Your task to perform on an android device: Open Yahoo.com Image 0: 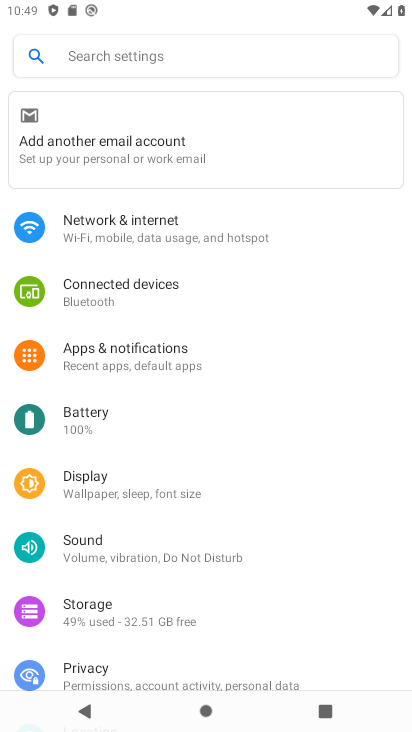
Step 0: press home button
Your task to perform on an android device: Open Yahoo.com Image 1: 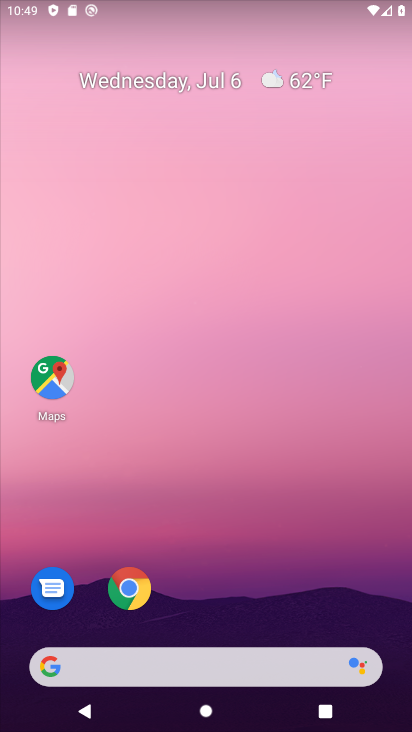
Step 1: click (126, 591)
Your task to perform on an android device: Open Yahoo.com Image 2: 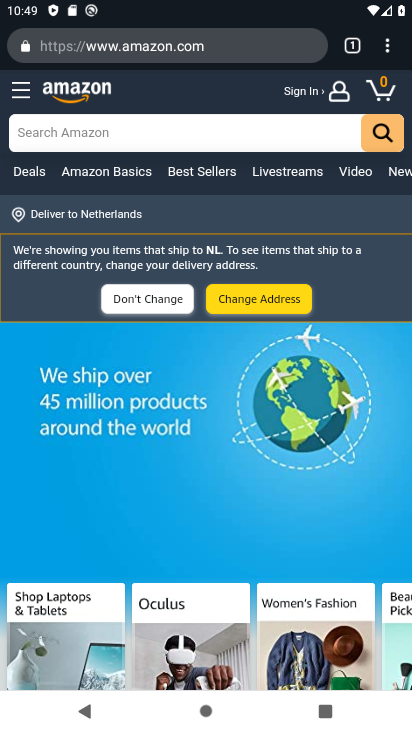
Step 2: click (217, 48)
Your task to perform on an android device: Open Yahoo.com Image 3: 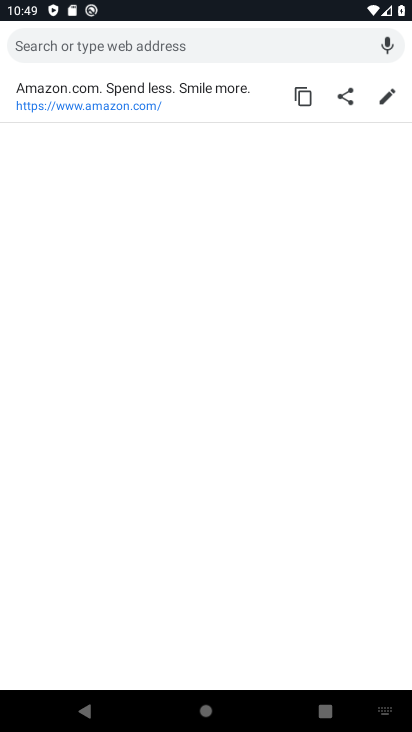
Step 3: type "yahoo.com"
Your task to perform on an android device: Open Yahoo.com Image 4: 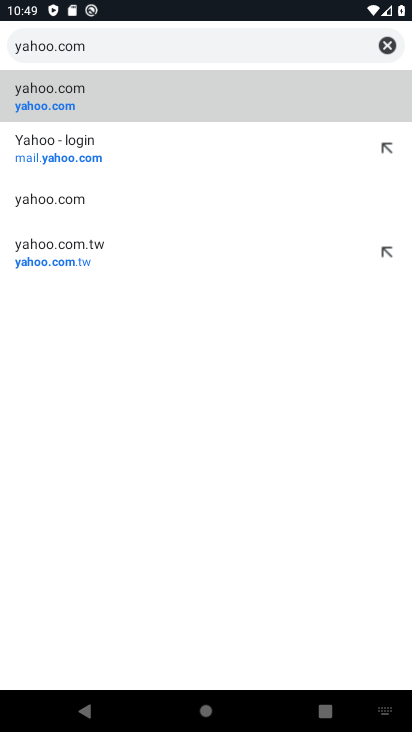
Step 4: click (47, 88)
Your task to perform on an android device: Open Yahoo.com Image 5: 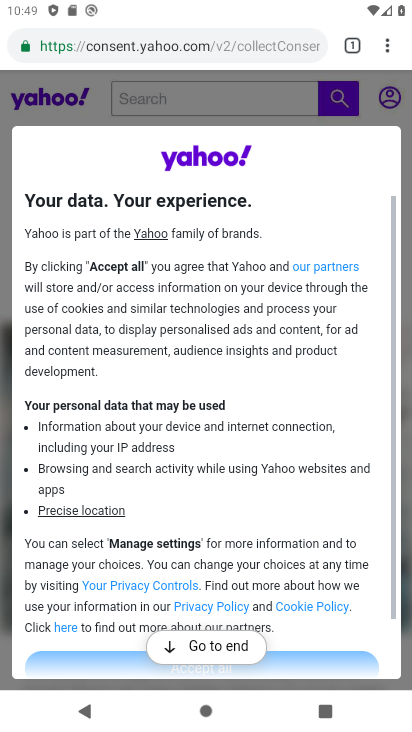
Step 5: click (217, 652)
Your task to perform on an android device: Open Yahoo.com Image 6: 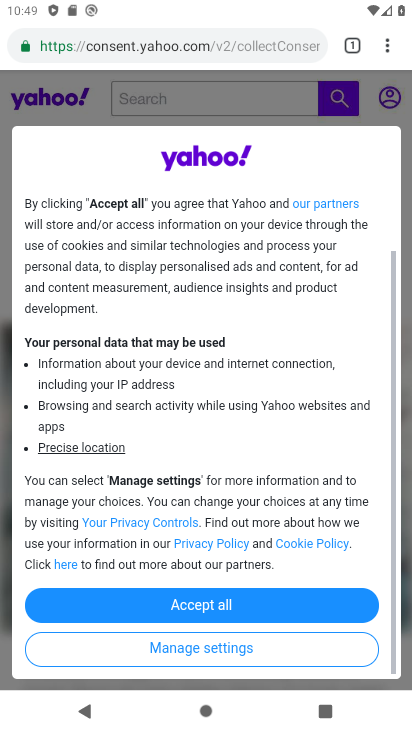
Step 6: click (197, 601)
Your task to perform on an android device: Open Yahoo.com Image 7: 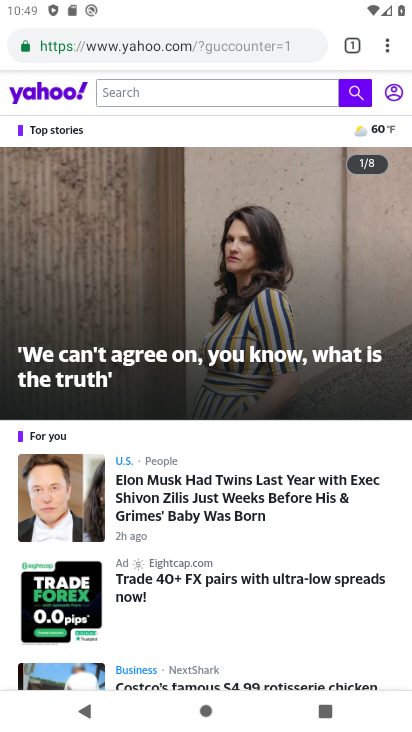
Step 7: click (228, 120)
Your task to perform on an android device: Open Yahoo.com Image 8: 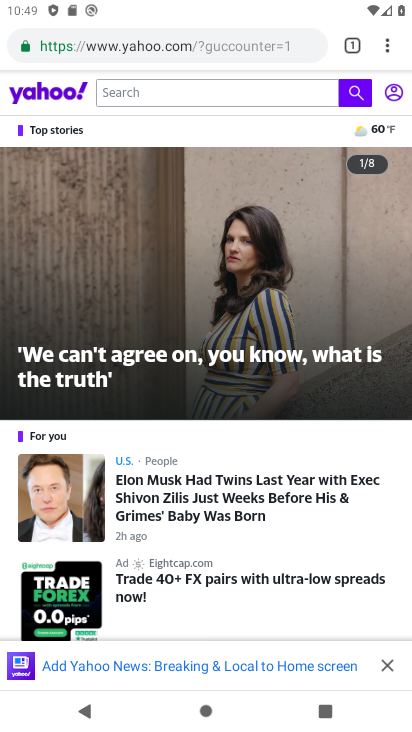
Step 8: task complete